Your task to perform on an android device: Open settings Image 0: 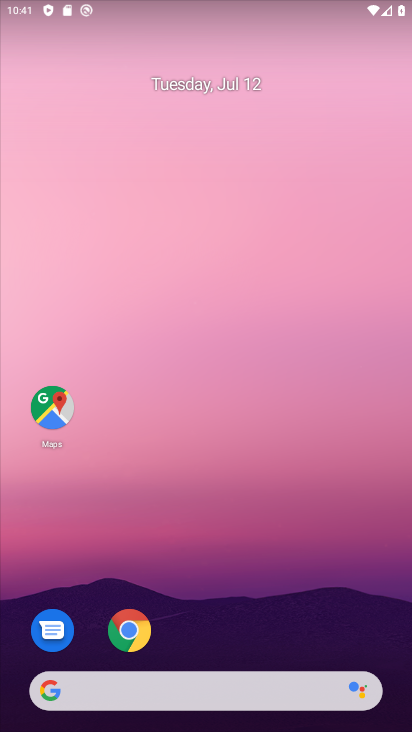
Step 0: drag from (398, 662) to (250, 101)
Your task to perform on an android device: Open settings Image 1: 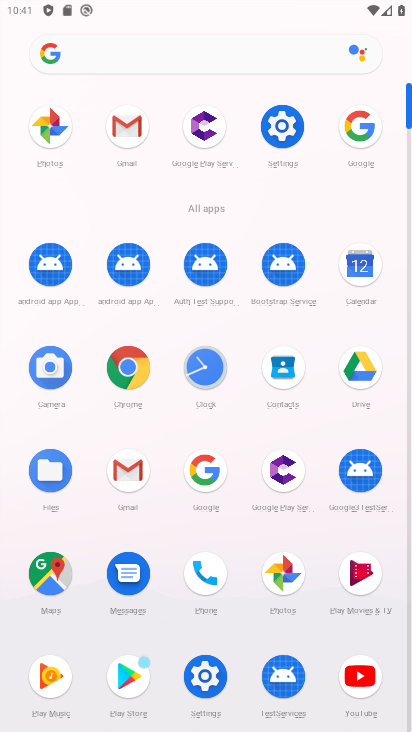
Step 1: click (196, 668)
Your task to perform on an android device: Open settings Image 2: 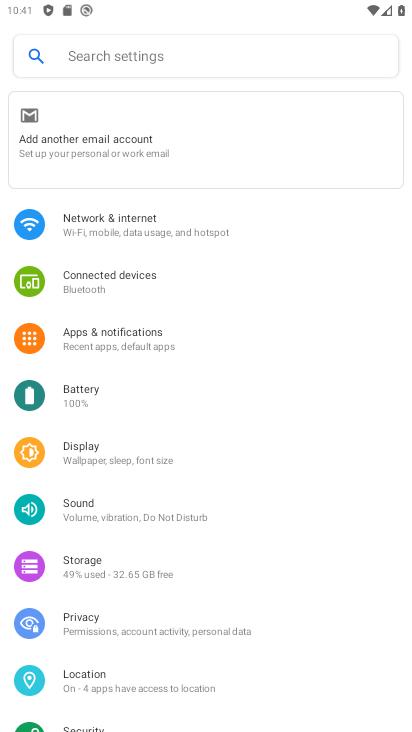
Step 2: task complete